Your task to perform on an android device: Go to privacy settings Image 0: 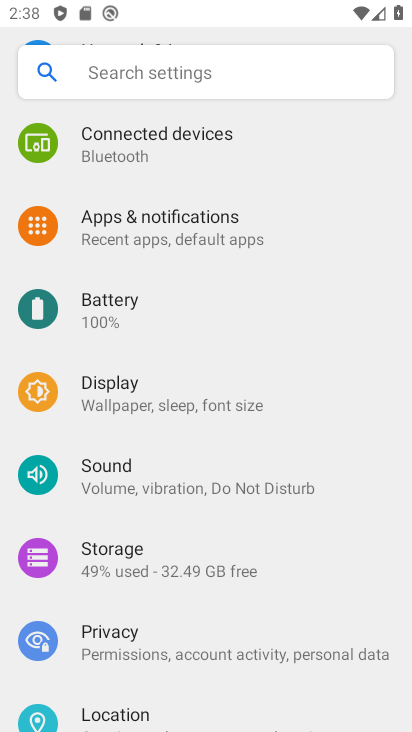
Step 0: click (195, 641)
Your task to perform on an android device: Go to privacy settings Image 1: 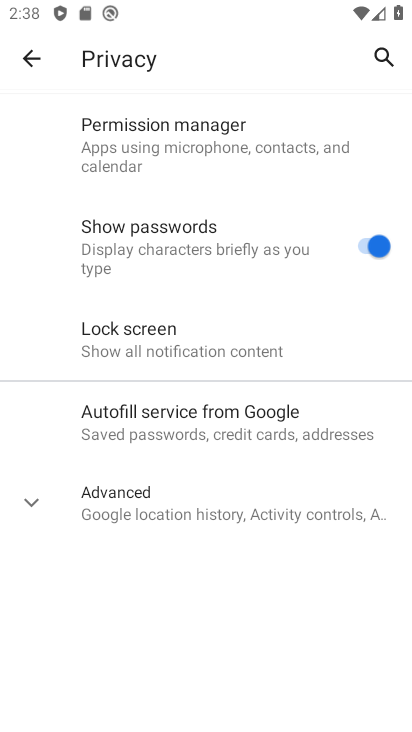
Step 1: task complete